Your task to perform on an android device: Open Chrome and go to settings Image 0: 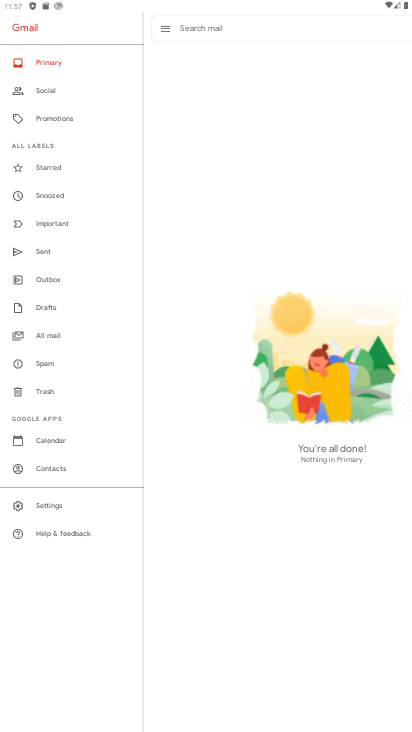
Step 0: press home button
Your task to perform on an android device: Open Chrome and go to settings Image 1: 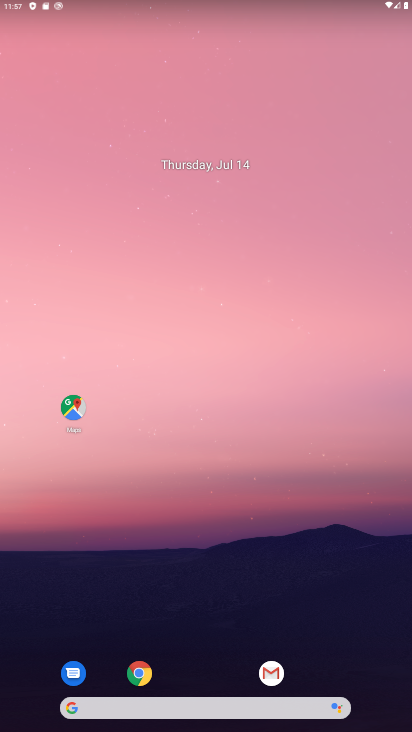
Step 1: click (139, 675)
Your task to perform on an android device: Open Chrome and go to settings Image 2: 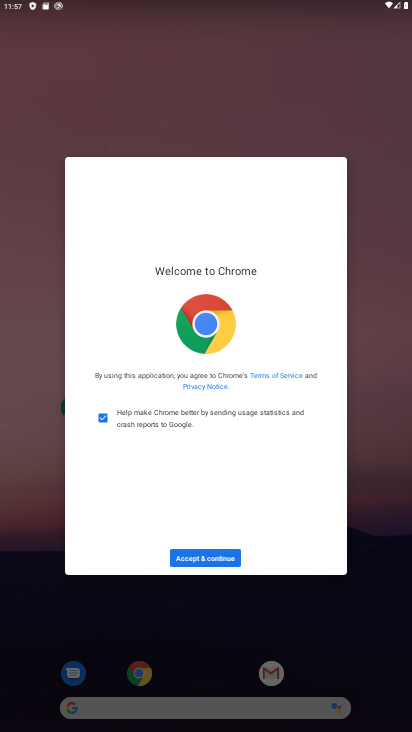
Step 2: click (203, 554)
Your task to perform on an android device: Open Chrome and go to settings Image 3: 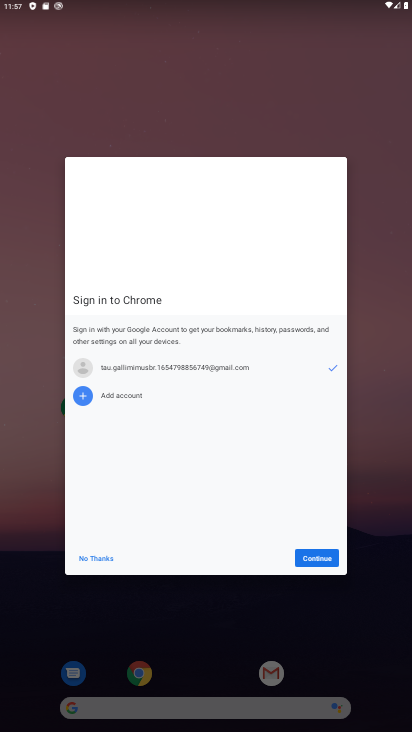
Step 3: click (315, 558)
Your task to perform on an android device: Open Chrome and go to settings Image 4: 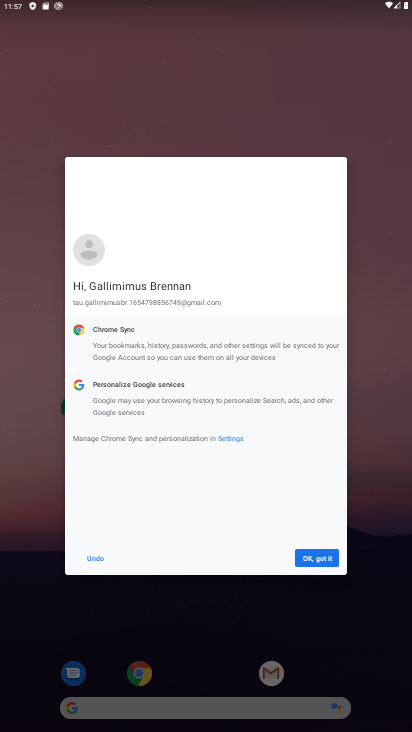
Step 4: click (315, 558)
Your task to perform on an android device: Open Chrome and go to settings Image 5: 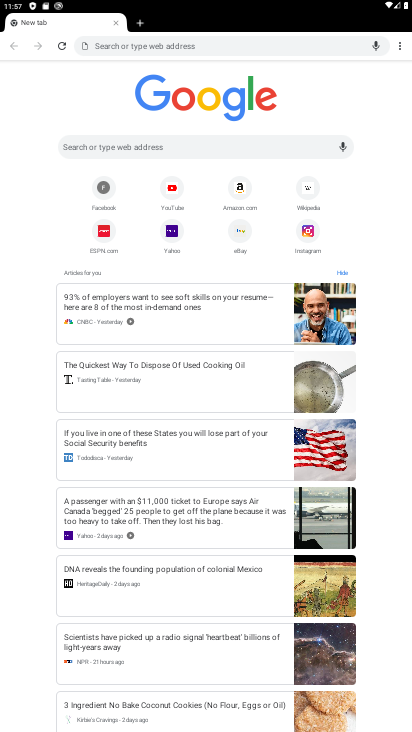
Step 5: click (401, 49)
Your task to perform on an android device: Open Chrome and go to settings Image 6: 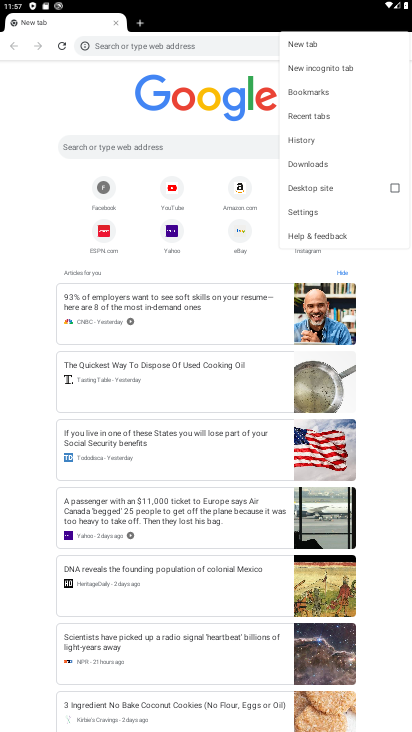
Step 6: click (306, 211)
Your task to perform on an android device: Open Chrome and go to settings Image 7: 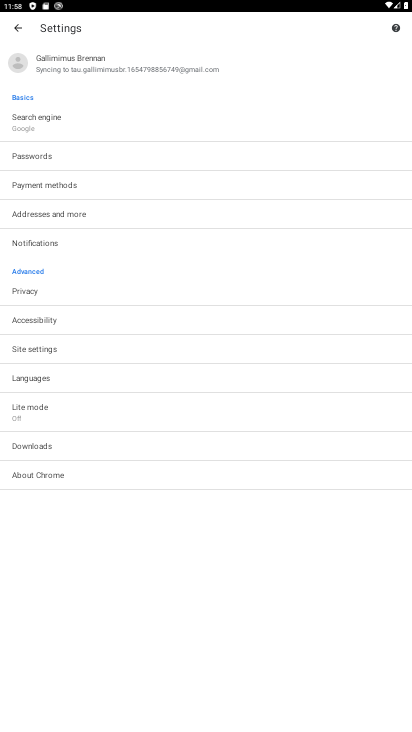
Step 7: task complete